Your task to perform on an android device: create a new album in the google photos Image 0: 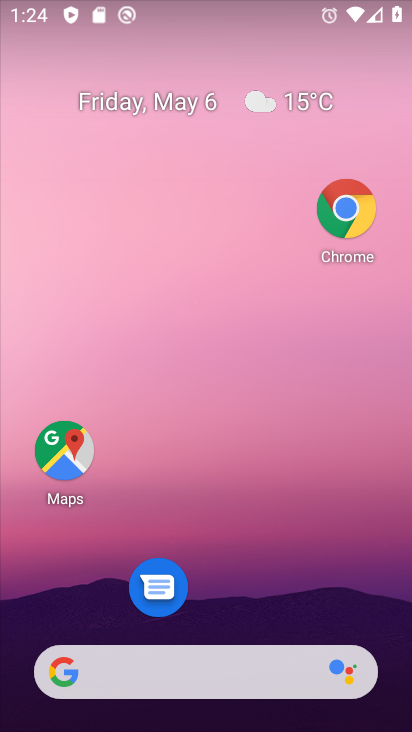
Step 0: click (63, 451)
Your task to perform on an android device: create a new album in the google photos Image 1: 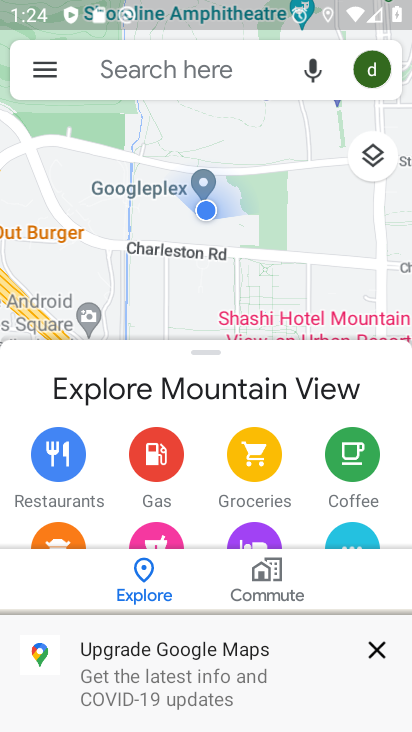
Step 1: press home button
Your task to perform on an android device: create a new album in the google photos Image 2: 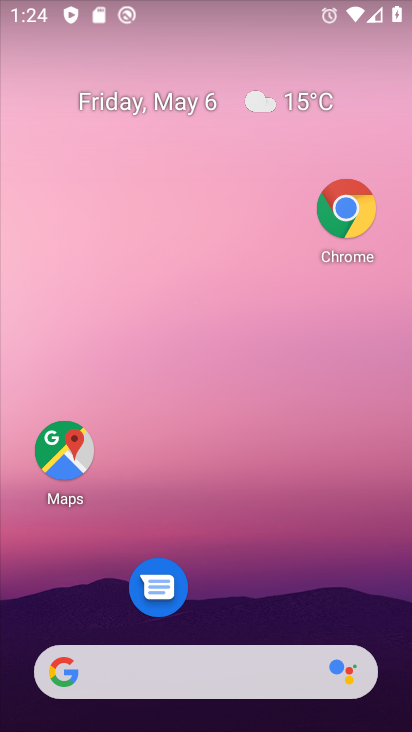
Step 2: drag from (293, 529) to (303, 172)
Your task to perform on an android device: create a new album in the google photos Image 3: 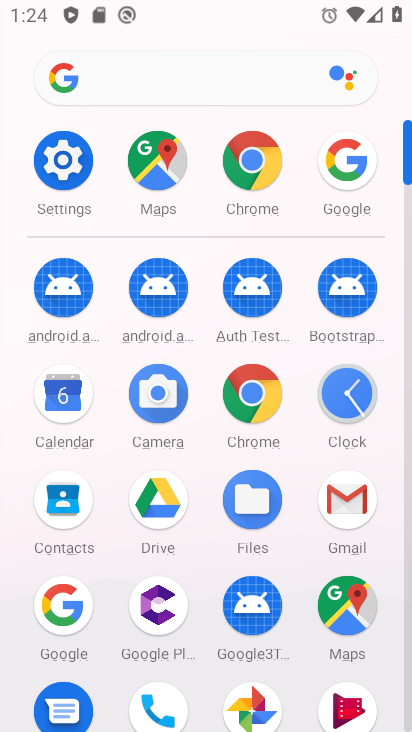
Step 3: drag from (253, 661) to (329, 345)
Your task to perform on an android device: create a new album in the google photos Image 4: 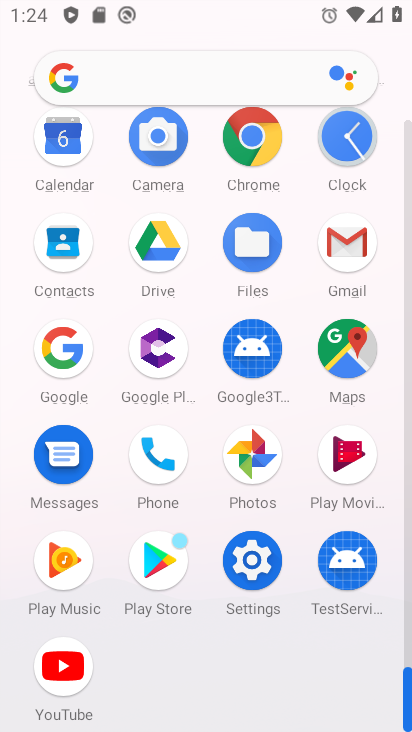
Step 4: click (237, 470)
Your task to perform on an android device: create a new album in the google photos Image 5: 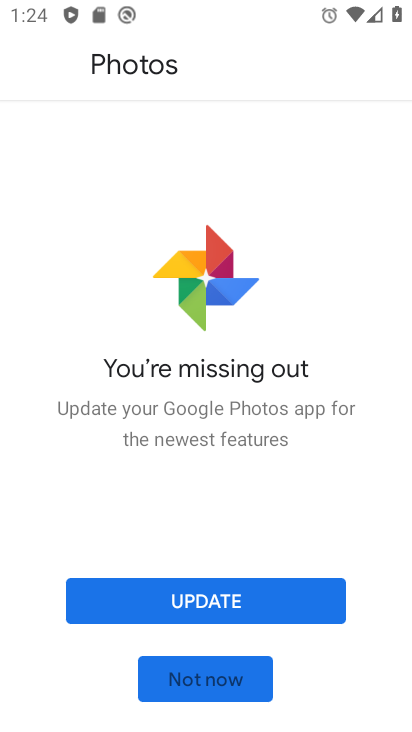
Step 5: click (227, 689)
Your task to perform on an android device: create a new album in the google photos Image 6: 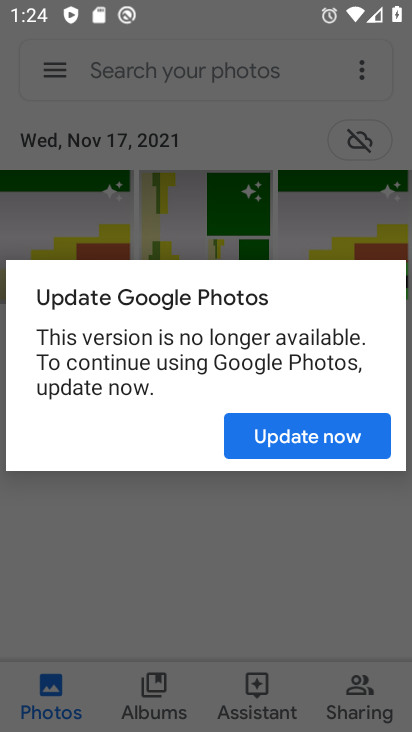
Step 6: click (335, 429)
Your task to perform on an android device: create a new album in the google photos Image 7: 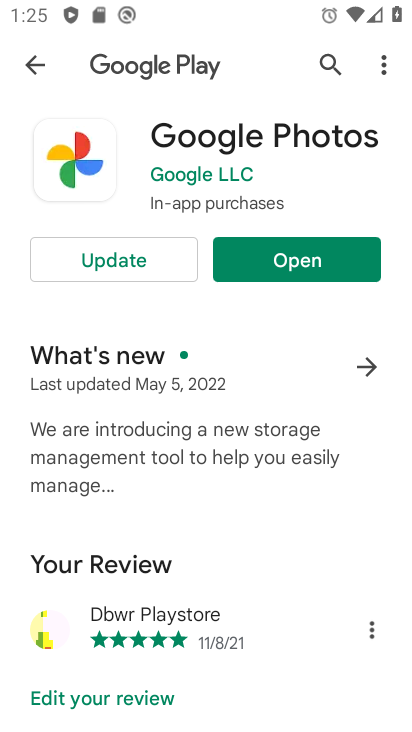
Step 7: click (296, 264)
Your task to perform on an android device: create a new album in the google photos Image 8: 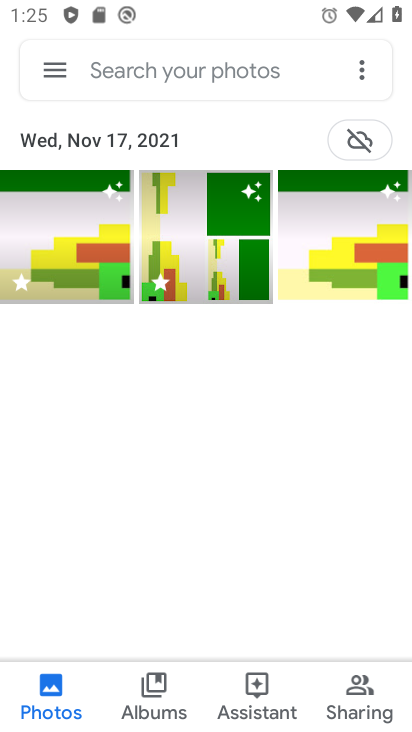
Step 8: click (179, 712)
Your task to perform on an android device: create a new album in the google photos Image 9: 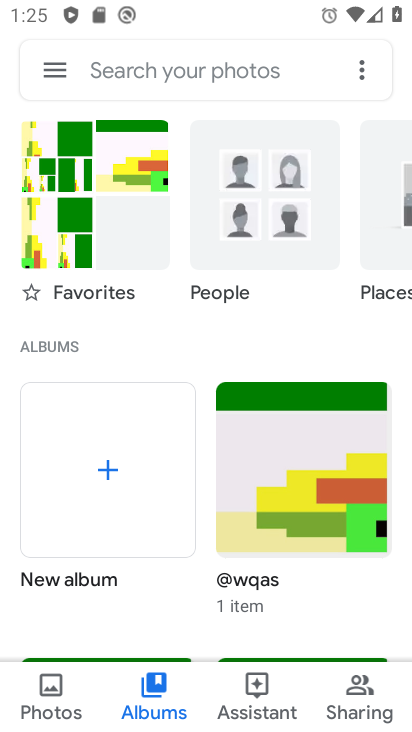
Step 9: click (79, 465)
Your task to perform on an android device: create a new album in the google photos Image 10: 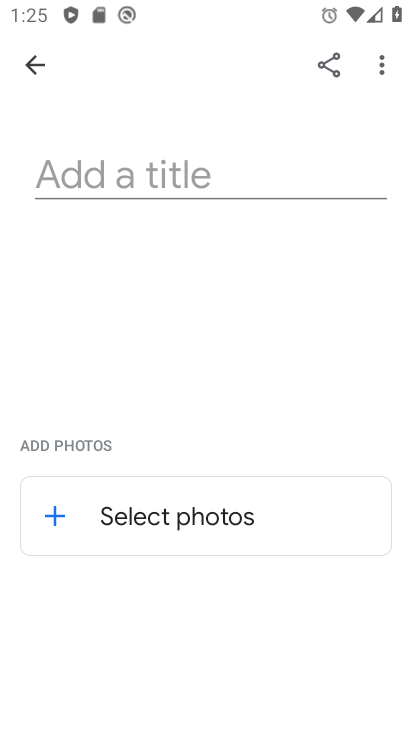
Step 10: click (213, 184)
Your task to perform on an android device: create a new album in the google photos Image 11: 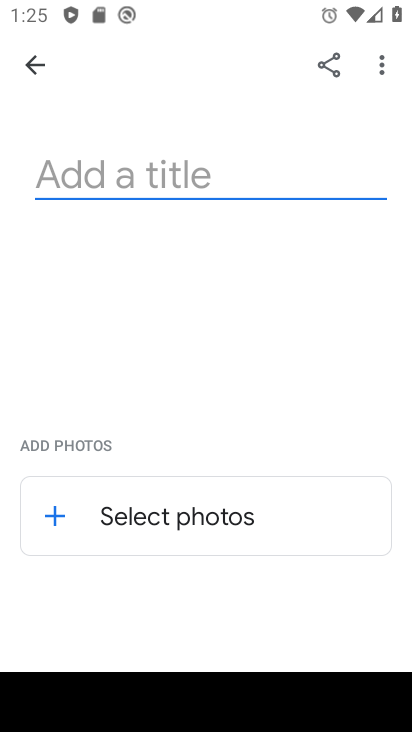
Step 11: type "sanju"
Your task to perform on an android device: create a new album in the google photos Image 12: 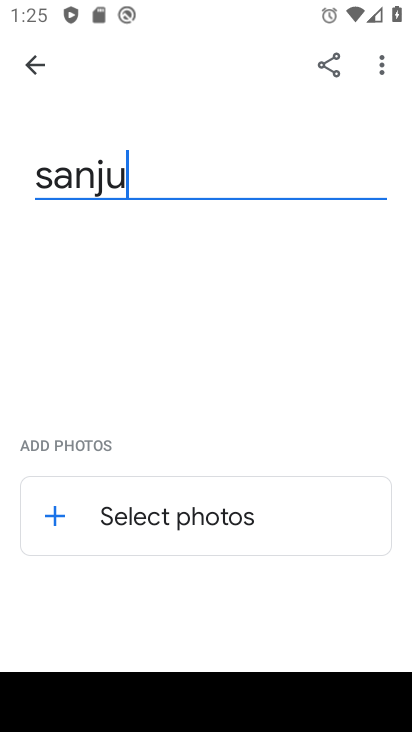
Step 12: click (322, 532)
Your task to perform on an android device: create a new album in the google photos Image 13: 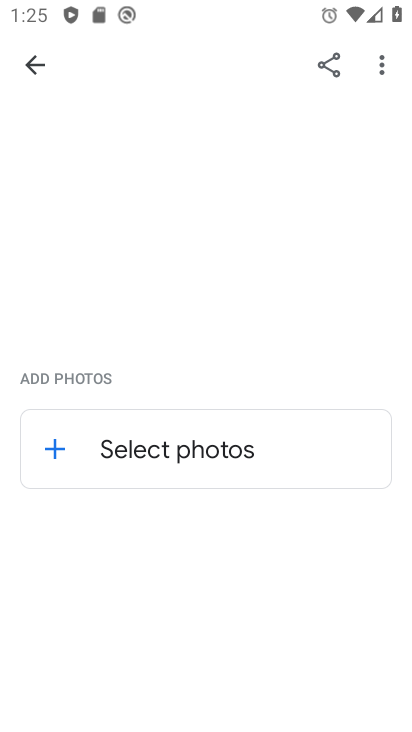
Step 13: click (171, 445)
Your task to perform on an android device: create a new album in the google photos Image 14: 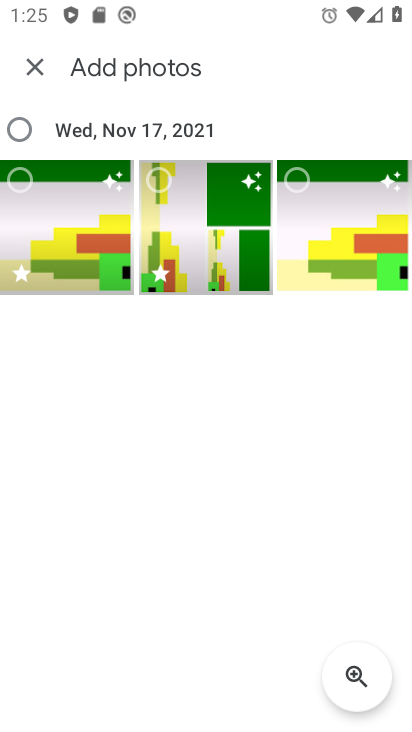
Step 14: click (17, 133)
Your task to perform on an android device: create a new album in the google photos Image 15: 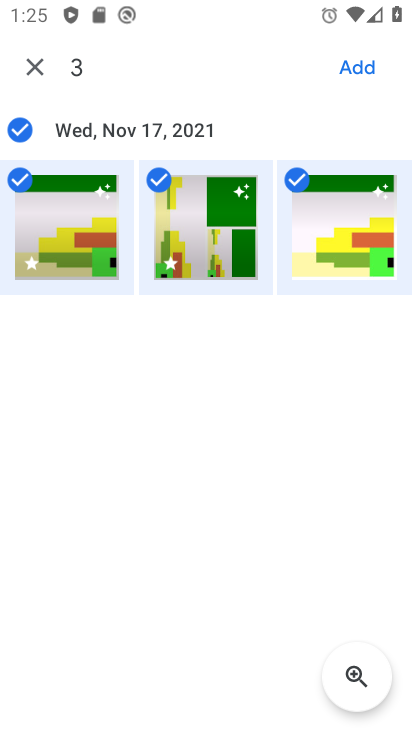
Step 15: click (363, 55)
Your task to perform on an android device: create a new album in the google photos Image 16: 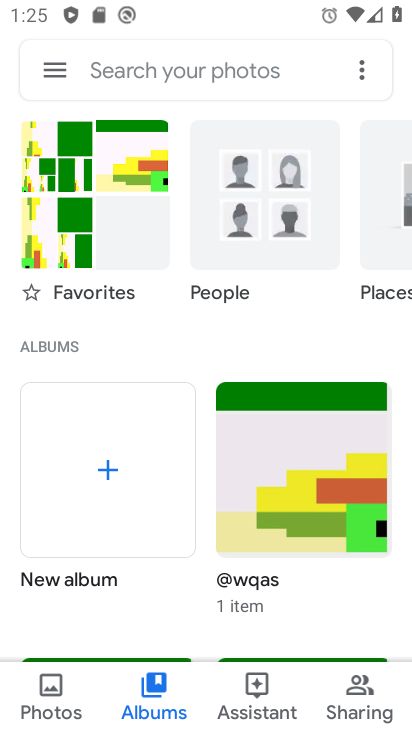
Step 16: task complete